Your task to perform on an android device: change timer sound Image 0: 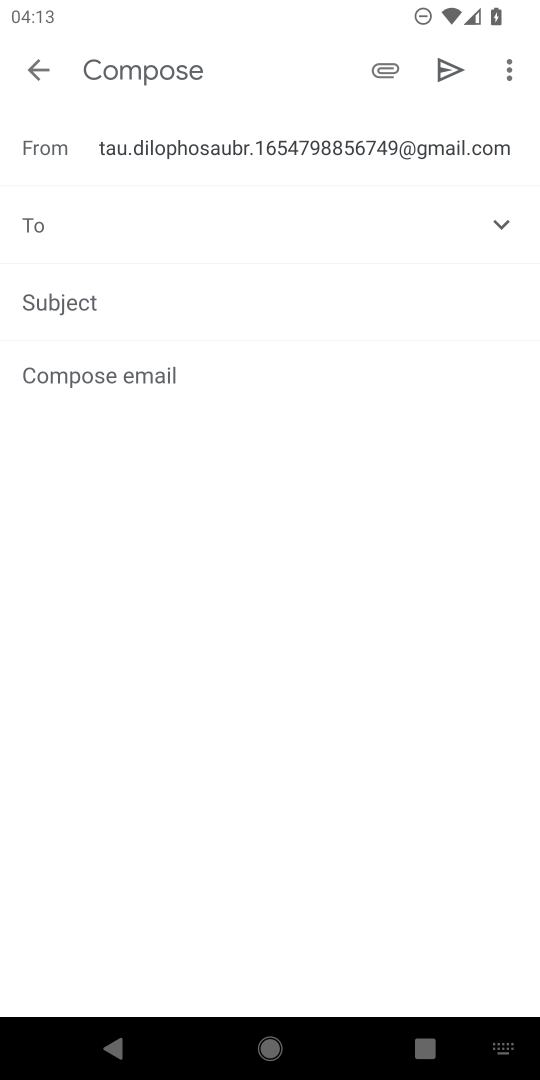
Step 0: press home button
Your task to perform on an android device: change timer sound Image 1: 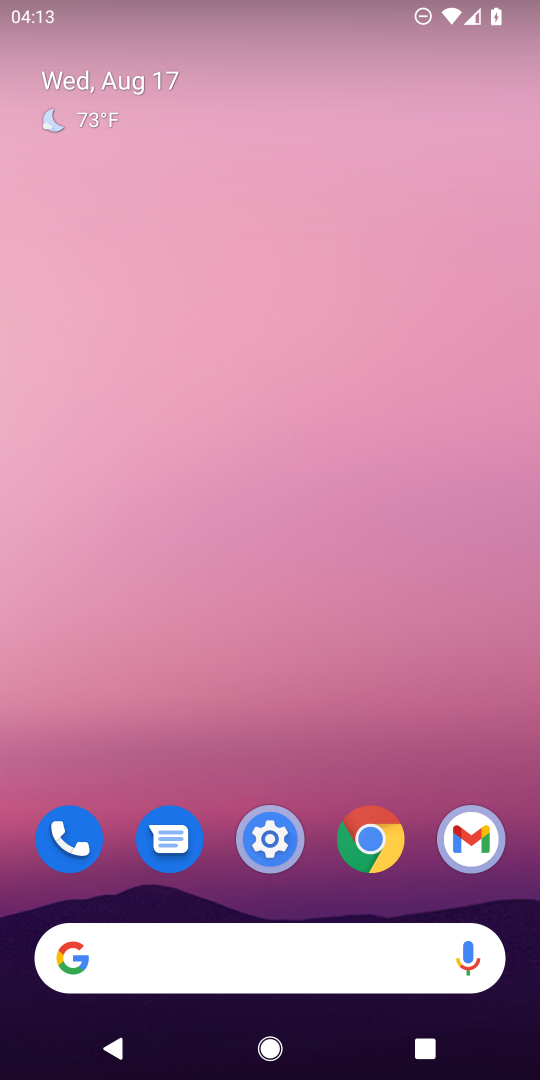
Step 1: drag from (337, 871) to (315, 149)
Your task to perform on an android device: change timer sound Image 2: 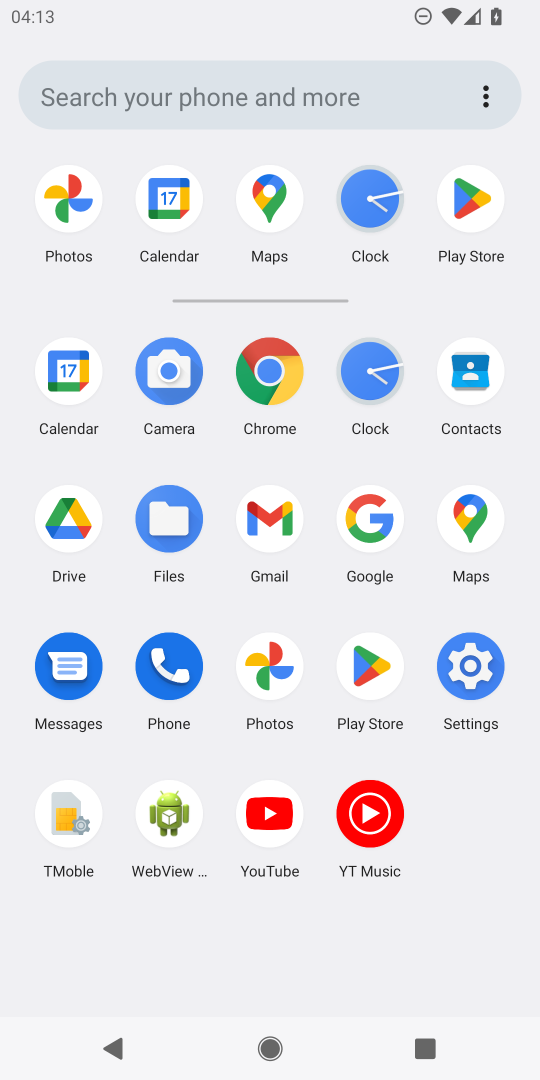
Step 2: click (358, 372)
Your task to perform on an android device: change timer sound Image 3: 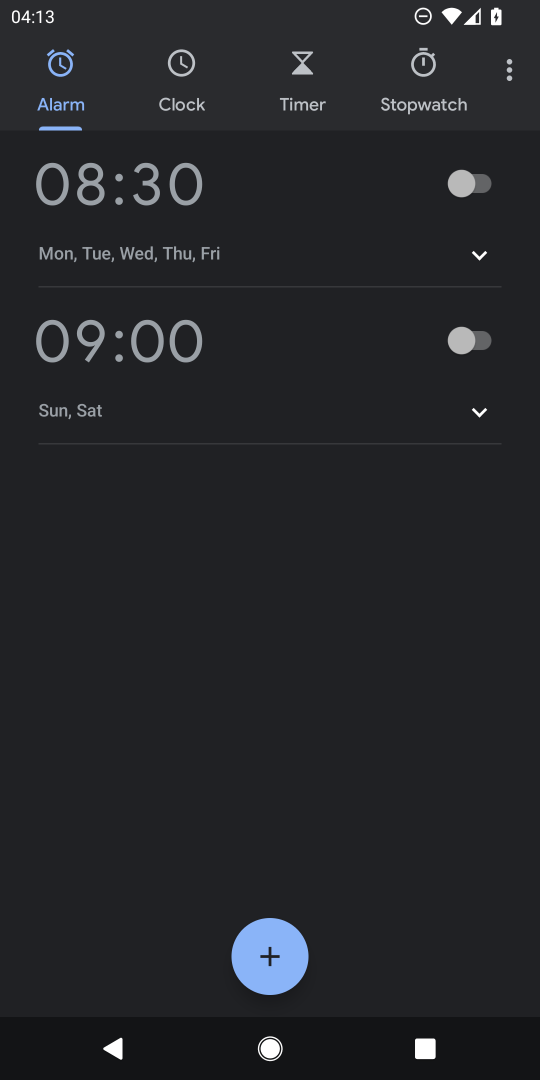
Step 3: click (514, 70)
Your task to perform on an android device: change timer sound Image 4: 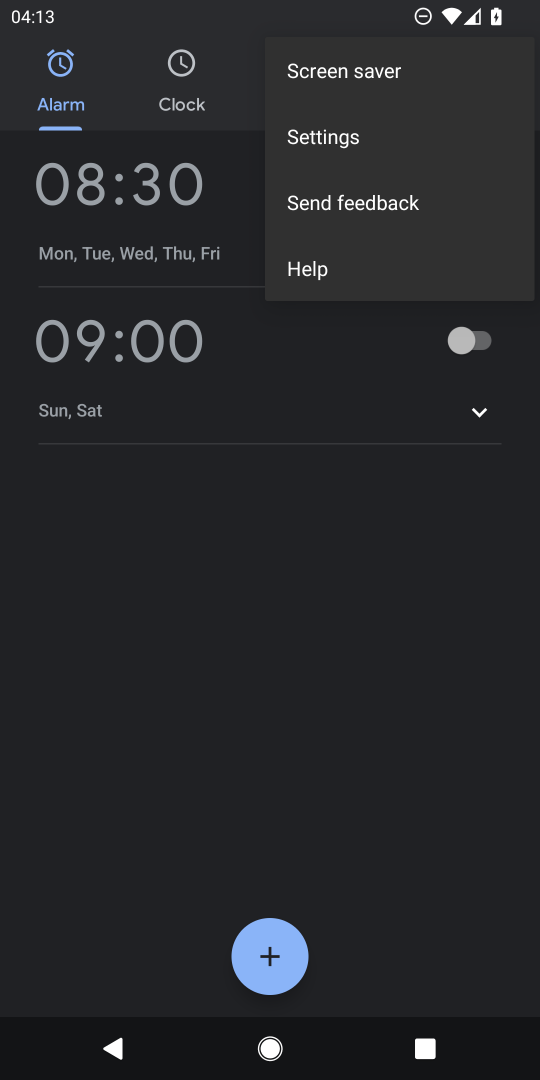
Step 4: click (308, 139)
Your task to perform on an android device: change timer sound Image 5: 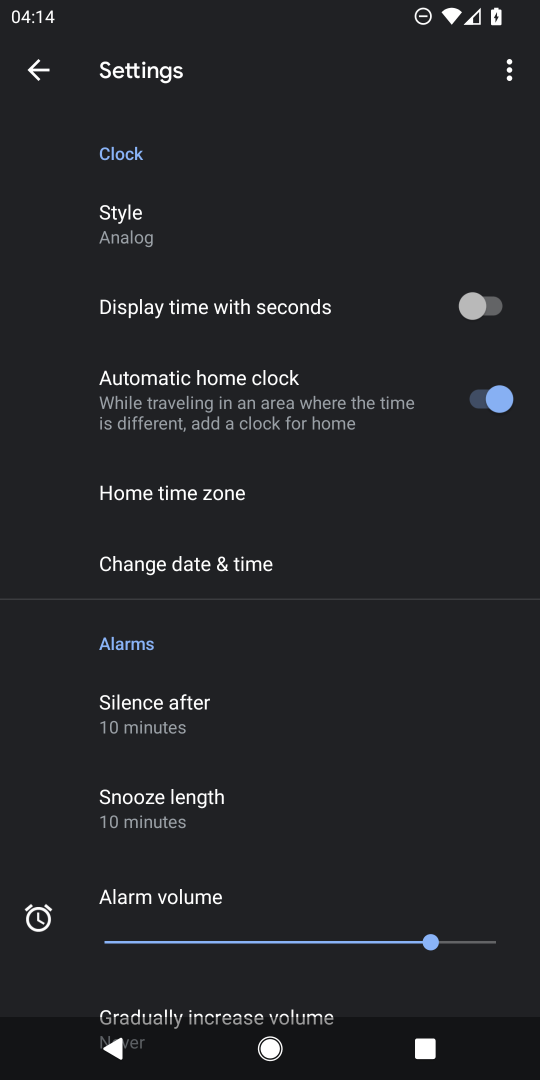
Step 5: drag from (173, 887) to (180, 331)
Your task to perform on an android device: change timer sound Image 6: 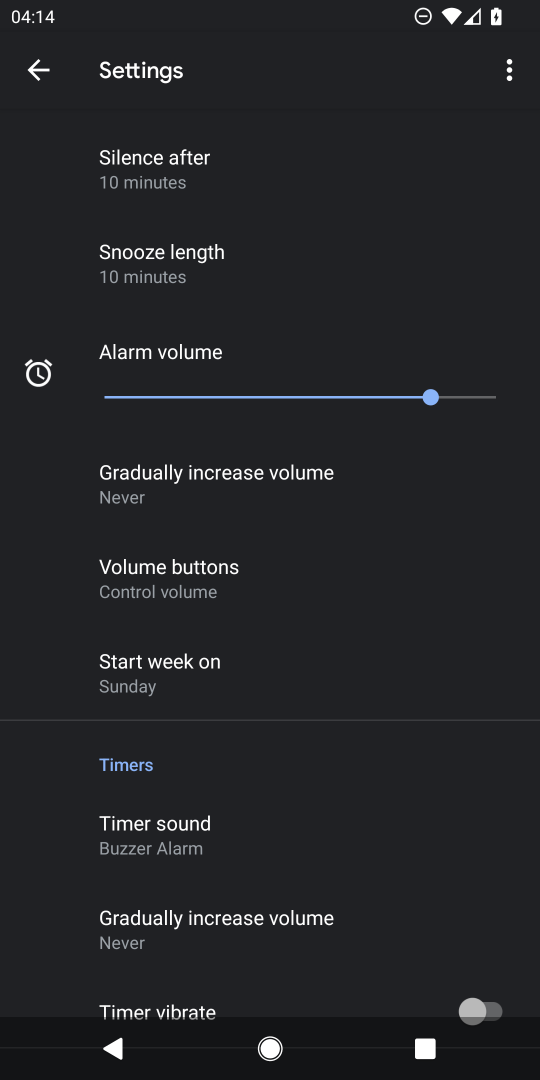
Step 6: click (172, 835)
Your task to perform on an android device: change timer sound Image 7: 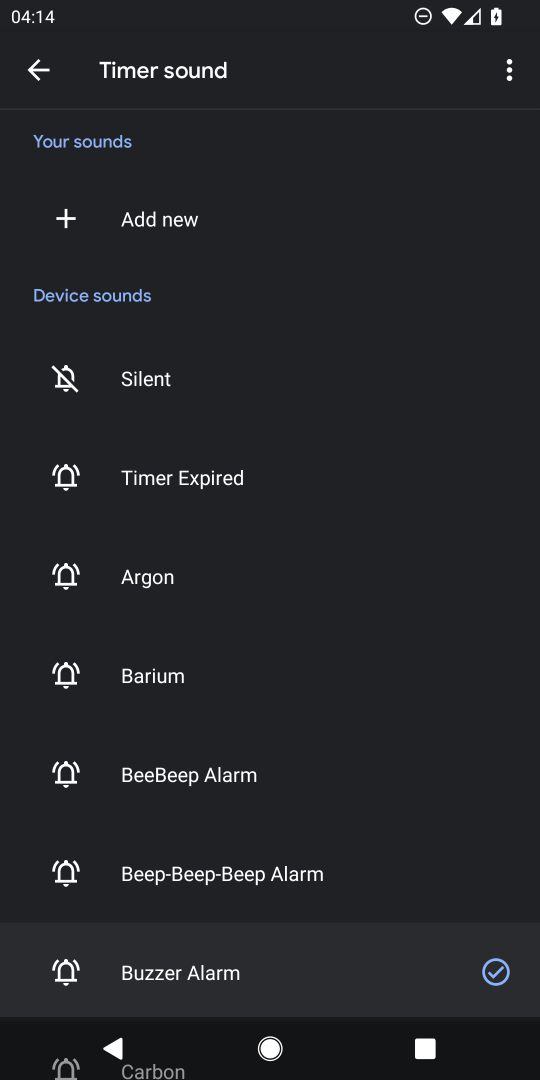
Step 7: click (195, 872)
Your task to perform on an android device: change timer sound Image 8: 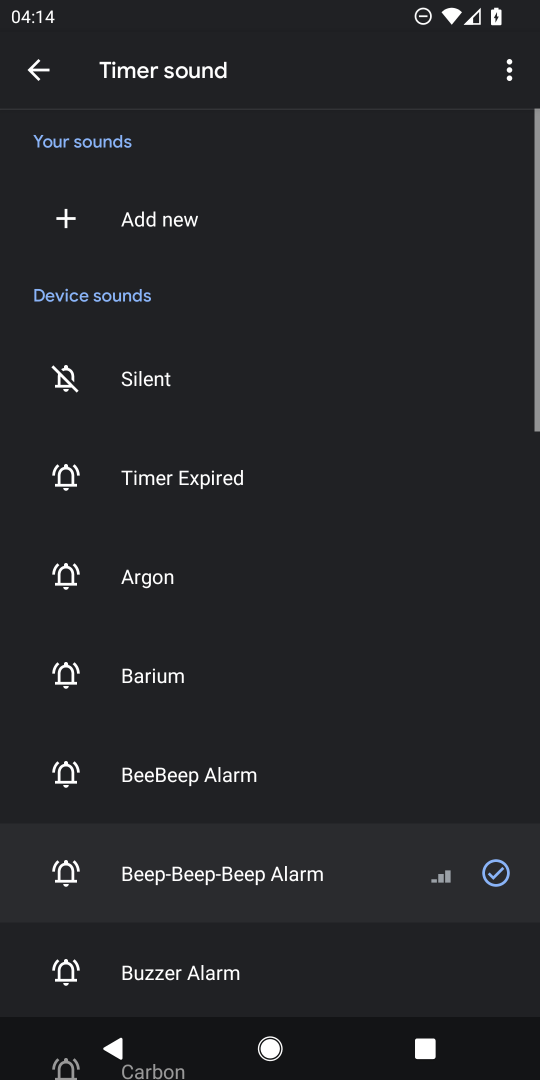
Step 8: task complete